Your task to perform on an android device: open a bookmark in the chrome app Image 0: 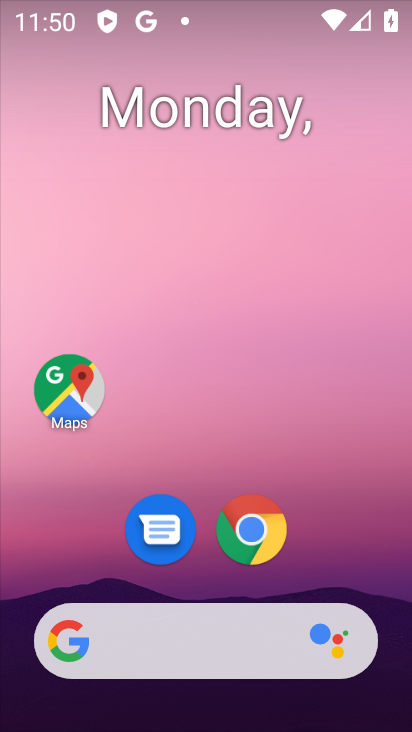
Step 0: click (241, 531)
Your task to perform on an android device: open a bookmark in the chrome app Image 1: 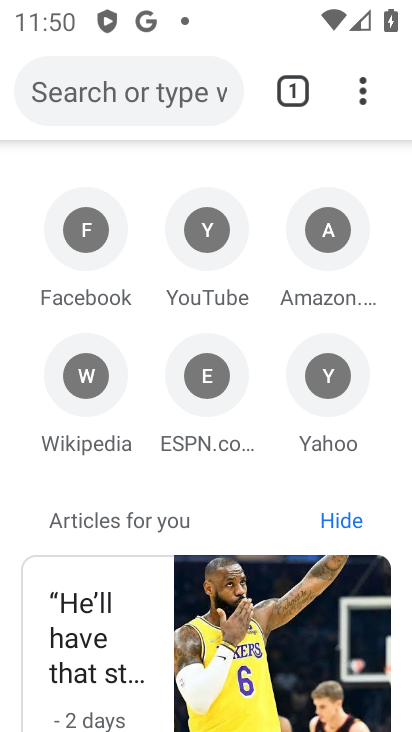
Step 1: click (360, 100)
Your task to perform on an android device: open a bookmark in the chrome app Image 2: 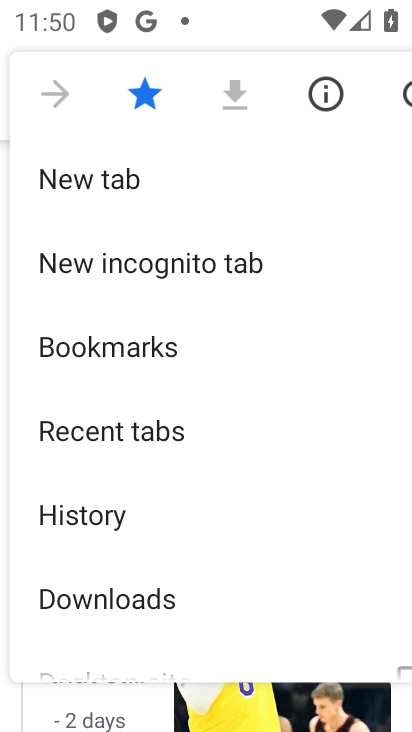
Step 2: click (124, 341)
Your task to perform on an android device: open a bookmark in the chrome app Image 3: 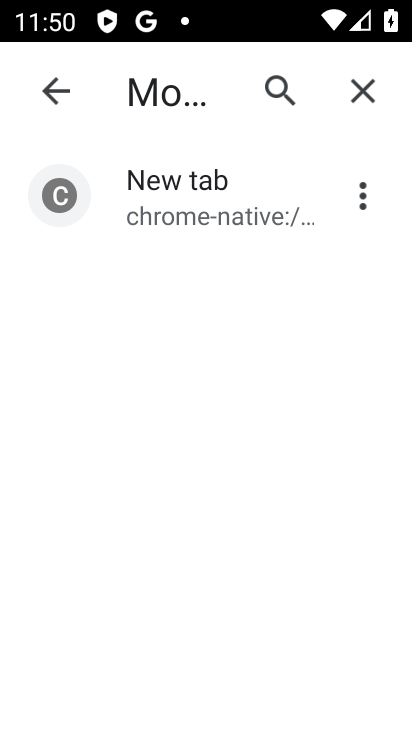
Step 3: click (159, 185)
Your task to perform on an android device: open a bookmark in the chrome app Image 4: 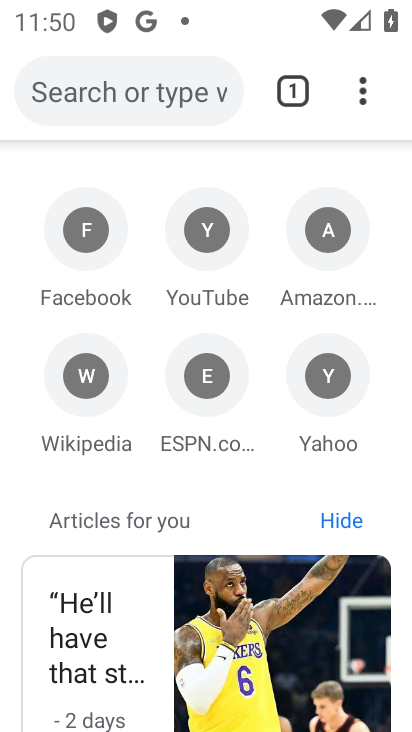
Step 4: task complete